Your task to perform on an android device: turn on priority inbox in the gmail app Image 0: 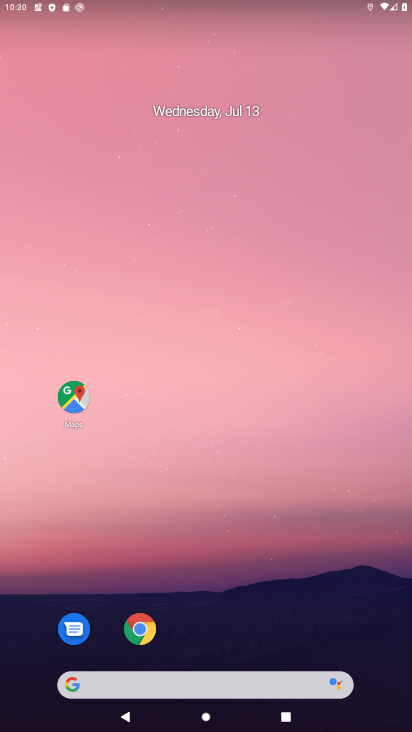
Step 0: press home button
Your task to perform on an android device: turn on priority inbox in the gmail app Image 1: 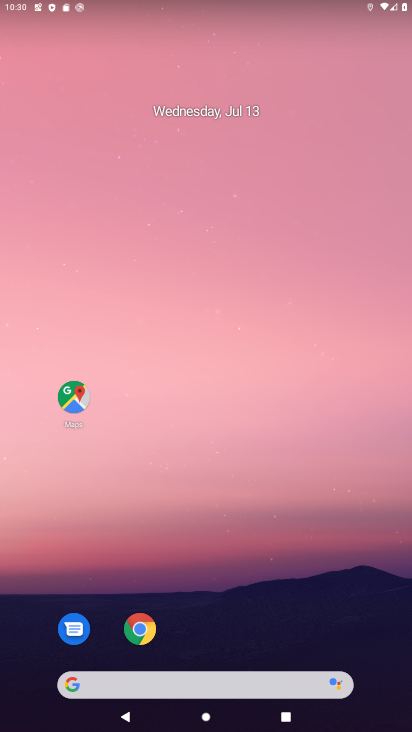
Step 1: drag from (214, 655) to (233, 3)
Your task to perform on an android device: turn on priority inbox in the gmail app Image 2: 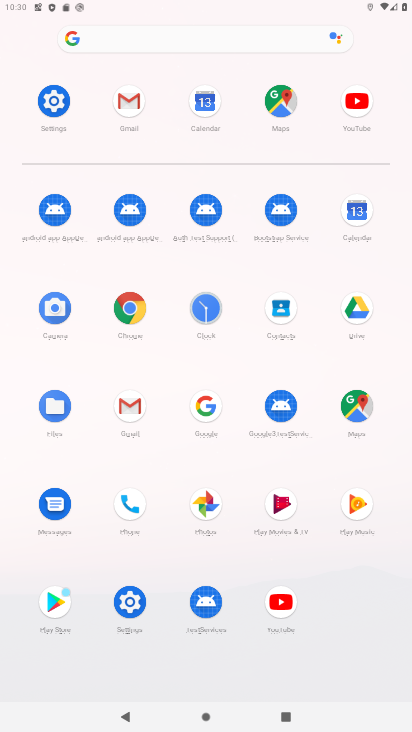
Step 2: click (127, 403)
Your task to perform on an android device: turn on priority inbox in the gmail app Image 3: 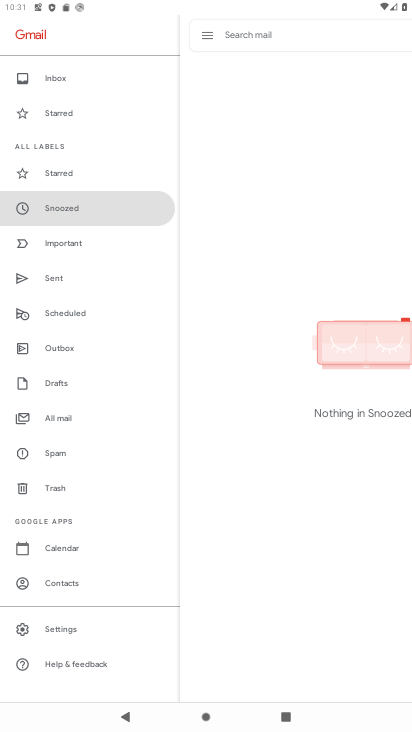
Step 3: click (73, 625)
Your task to perform on an android device: turn on priority inbox in the gmail app Image 4: 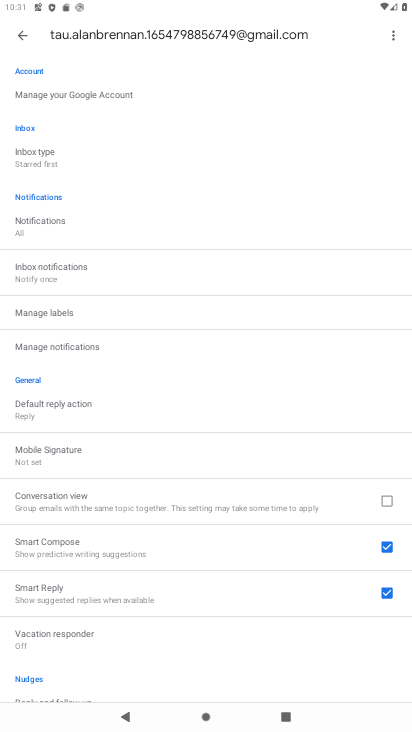
Step 4: click (68, 159)
Your task to perform on an android device: turn on priority inbox in the gmail app Image 5: 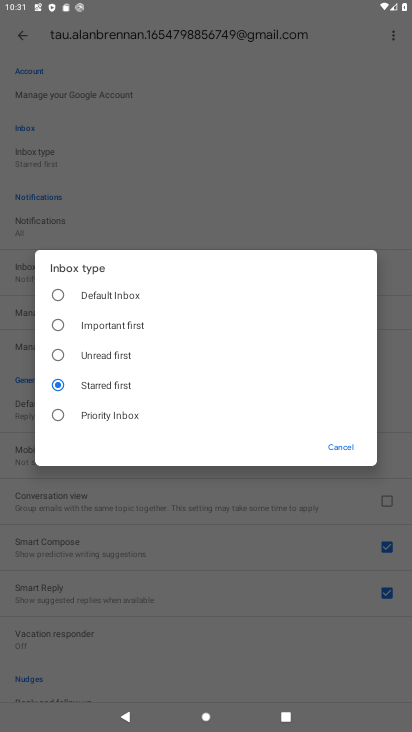
Step 5: click (59, 414)
Your task to perform on an android device: turn on priority inbox in the gmail app Image 6: 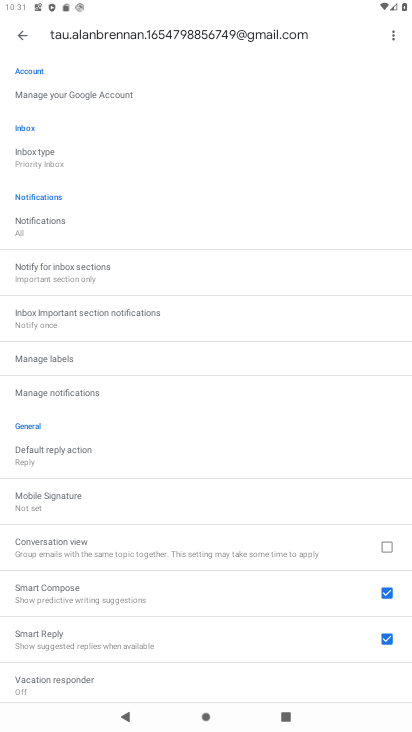
Step 6: task complete